Your task to perform on an android device: toggle notifications settings in the gmail app Image 0: 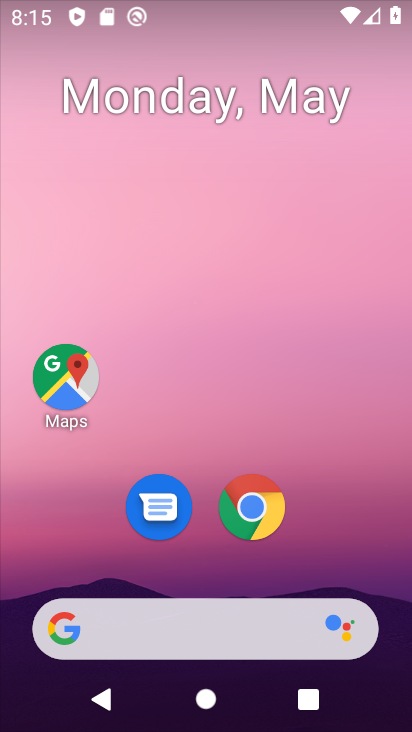
Step 0: click (235, 47)
Your task to perform on an android device: toggle notifications settings in the gmail app Image 1: 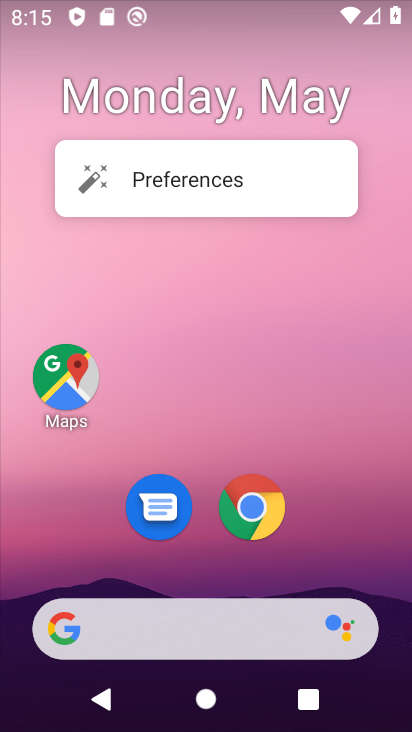
Step 1: drag from (207, 357) to (241, 6)
Your task to perform on an android device: toggle notifications settings in the gmail app Image 2: 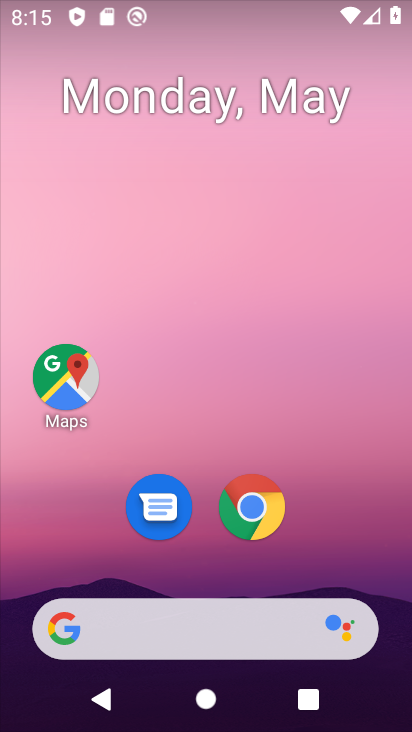
Step 2: drag from (203, 511) to (240, 40)
Your task to perform on an android device: toggle notifications settings in the gmail app Image 3: 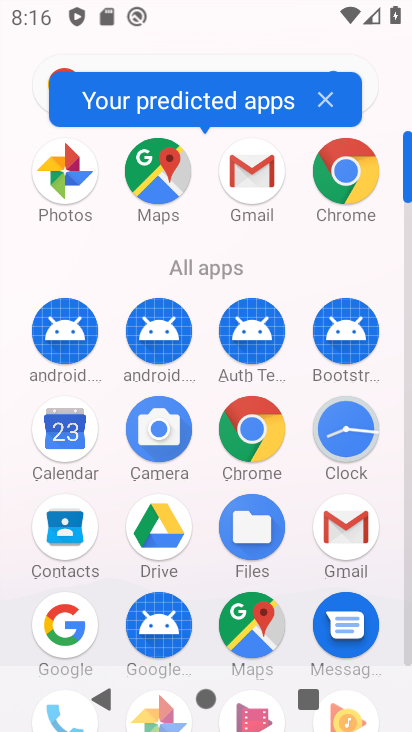
Step 3: click (320, 530)
Your task to perform on an android device: toggle notifications settings in the gmail app Image 4: 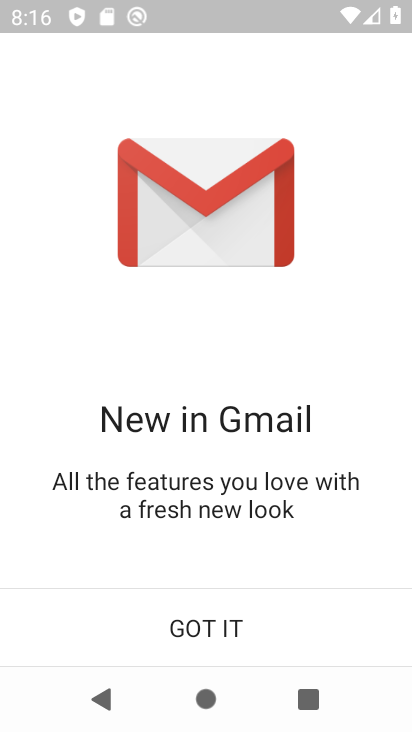
Step 4: click (214, 628)
Your task to perform on an android device: toggle notifications settings in the gmail app Image 5: 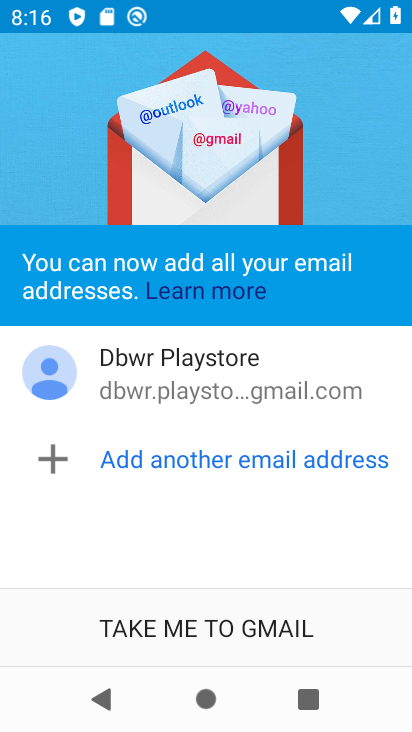
Step 5: click (214, 628)
Your task to perform on an android device: toggle notifications settings in the gmail app Image 6: 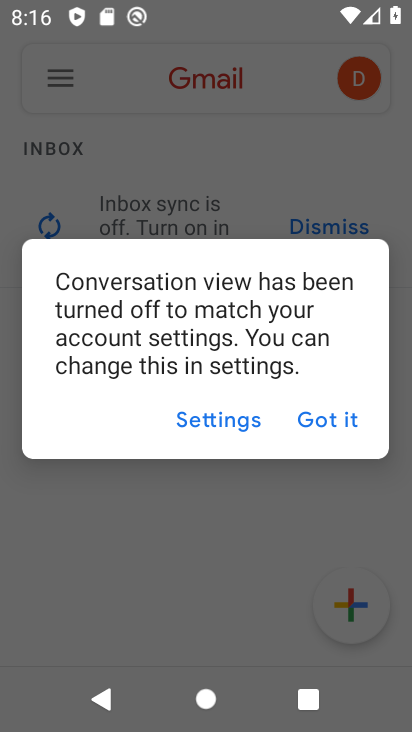
Step 6: click (326, 414)
Your task to perform on an android device: toggle notifications settings in the gmail app Image 7: 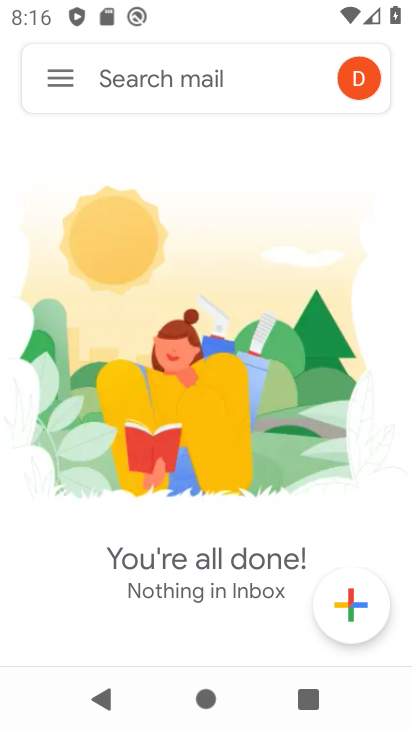
Step 7: click (66, 72)
Your task to perform on an android device: toggle notifications settings in the gmail app Image 8: 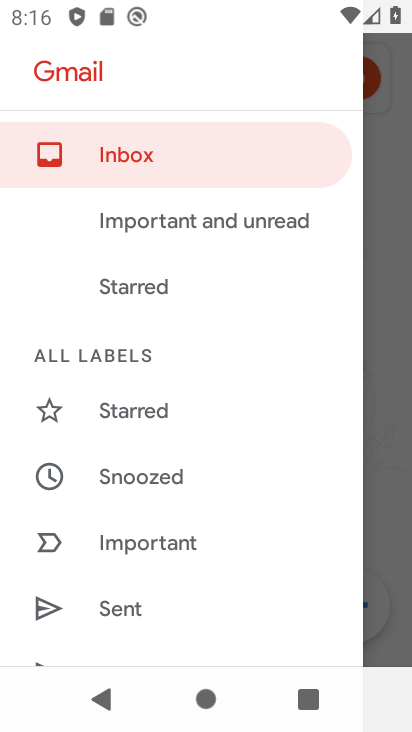
Step 8: drag from (163, 592) to (226, 1)
Your task to perform on an android device: toggle notifications settings in the gmail app Image 9: 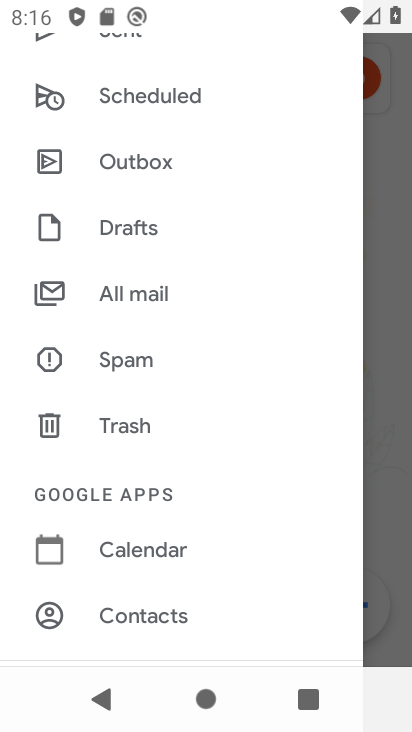
Step 9: drag from (143, 569) to (171, 105)
Your task to perform on an android device: toggle notifications settings in the gmail app Image 10: 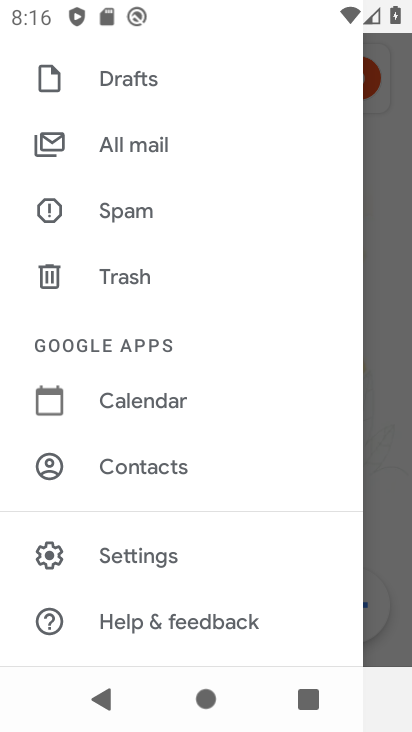
Step 10: click (107, 558)
Your task to perform on an android device: toggle notifications settings in the gmail app Image 11: 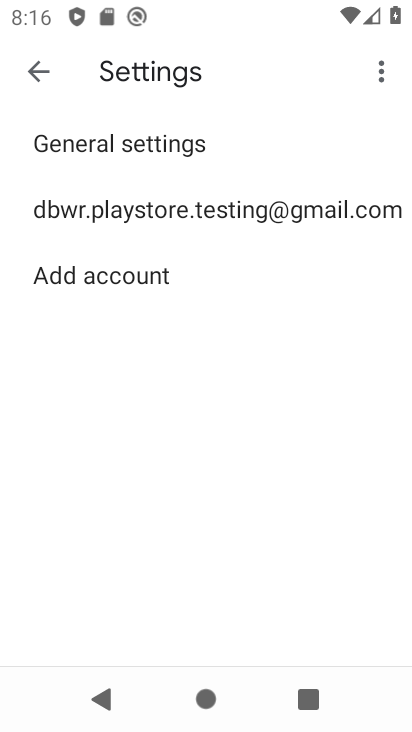
Step 11: click (162, 145)
Your task to perform on an android device: toggle notifications settings in the gmail app Image 12: 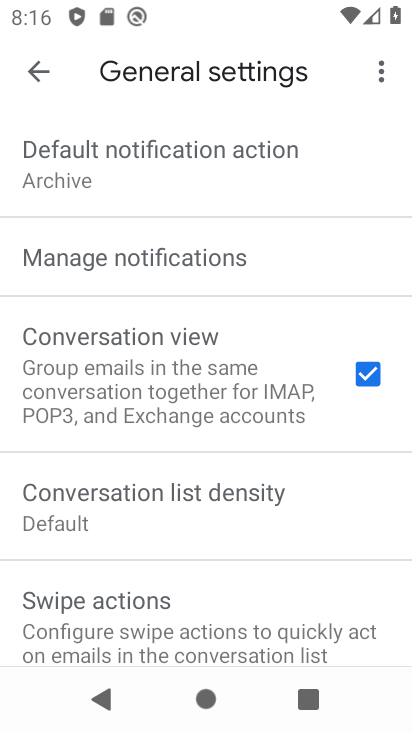
Step 12: click (177, 261)
Your task to perform on an android device: toggle notifications settings in the gmail app Image 13: 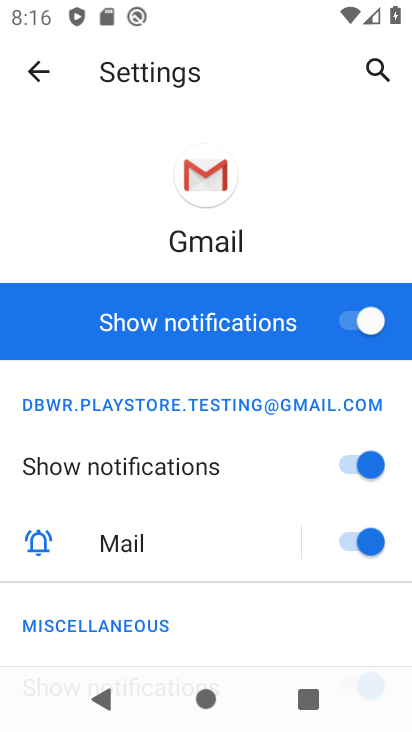
Step 13: click (356, 317)
Your task to perform on an android device: toggle notifications settings in the gmail app Image 14: 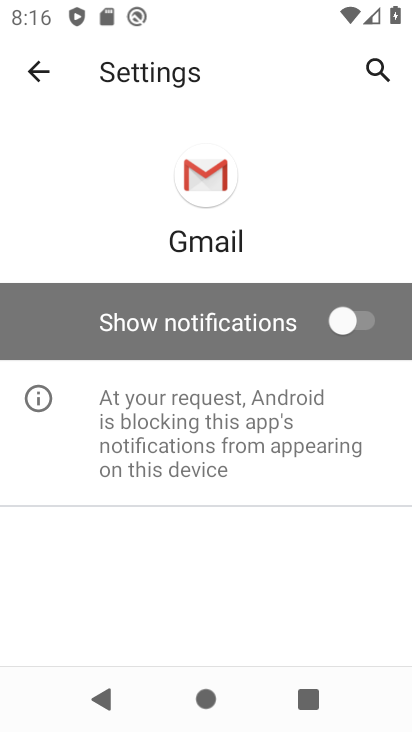
Step 14: task complete